Your task to perform on an android device: Open Android settings Image 0: 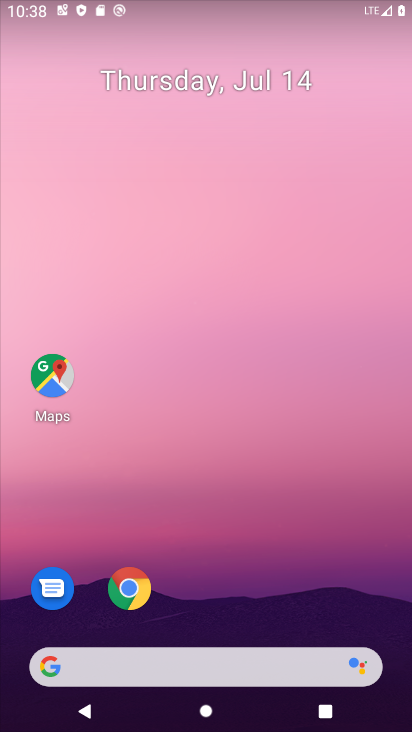
Step 0: click (213, 54)
Your task to perform on an android device: Open Android settings Image 1: 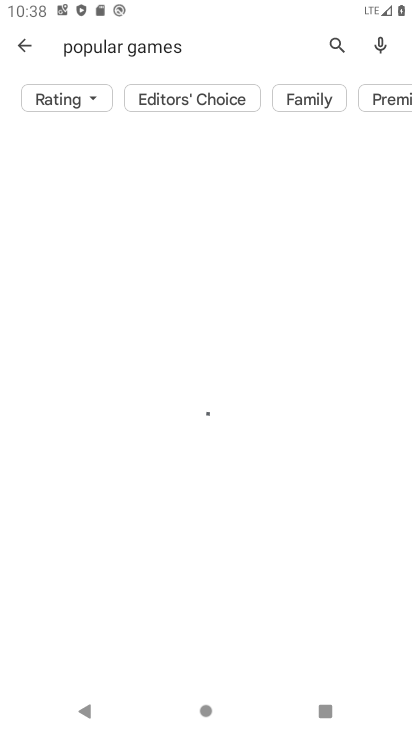
Step 1: press home button
Your task to perform on an android device: Open Android settings Image 2: 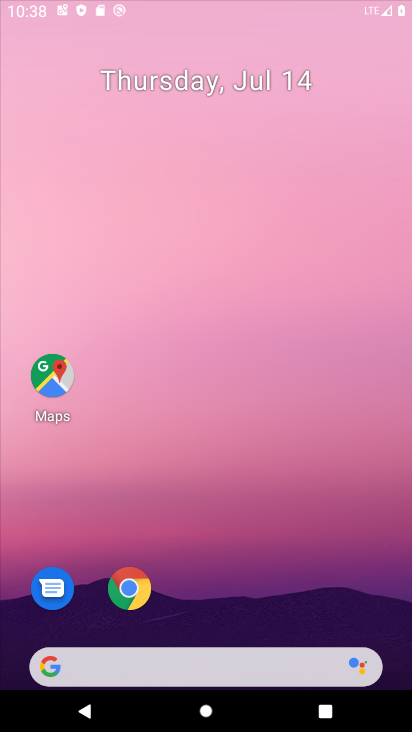
Step 2: drag from (396, 659) to (284, 86)
Your task to perform on an android device: Open Android settings Image 3: 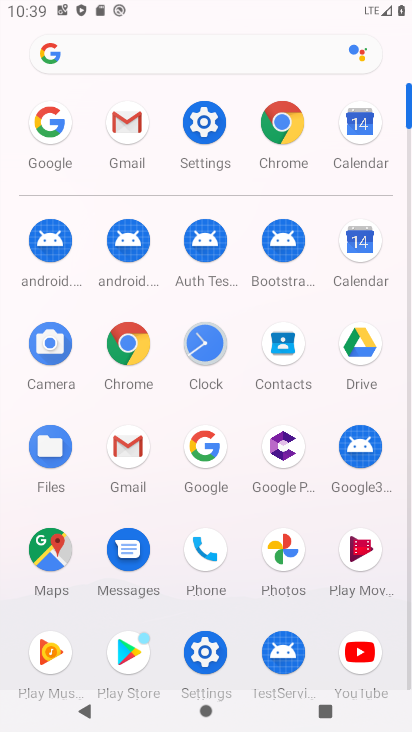
Step 3: click (220, 650)
Your task to perform on an android device: Open Android settings Image 4: 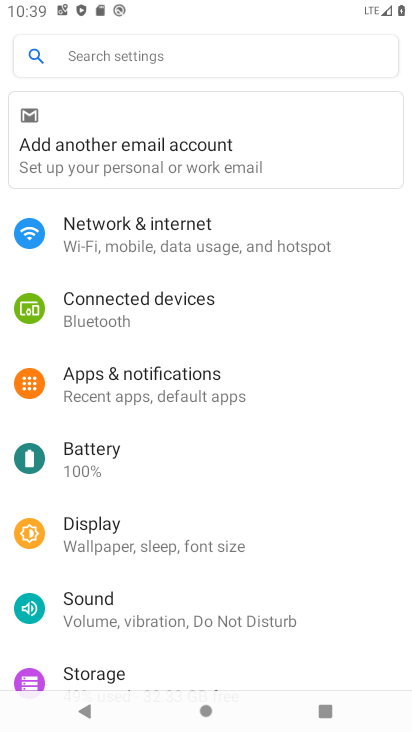
Step 4: task complete